Your task to perform on an android device: set the stopwatch Image 0: 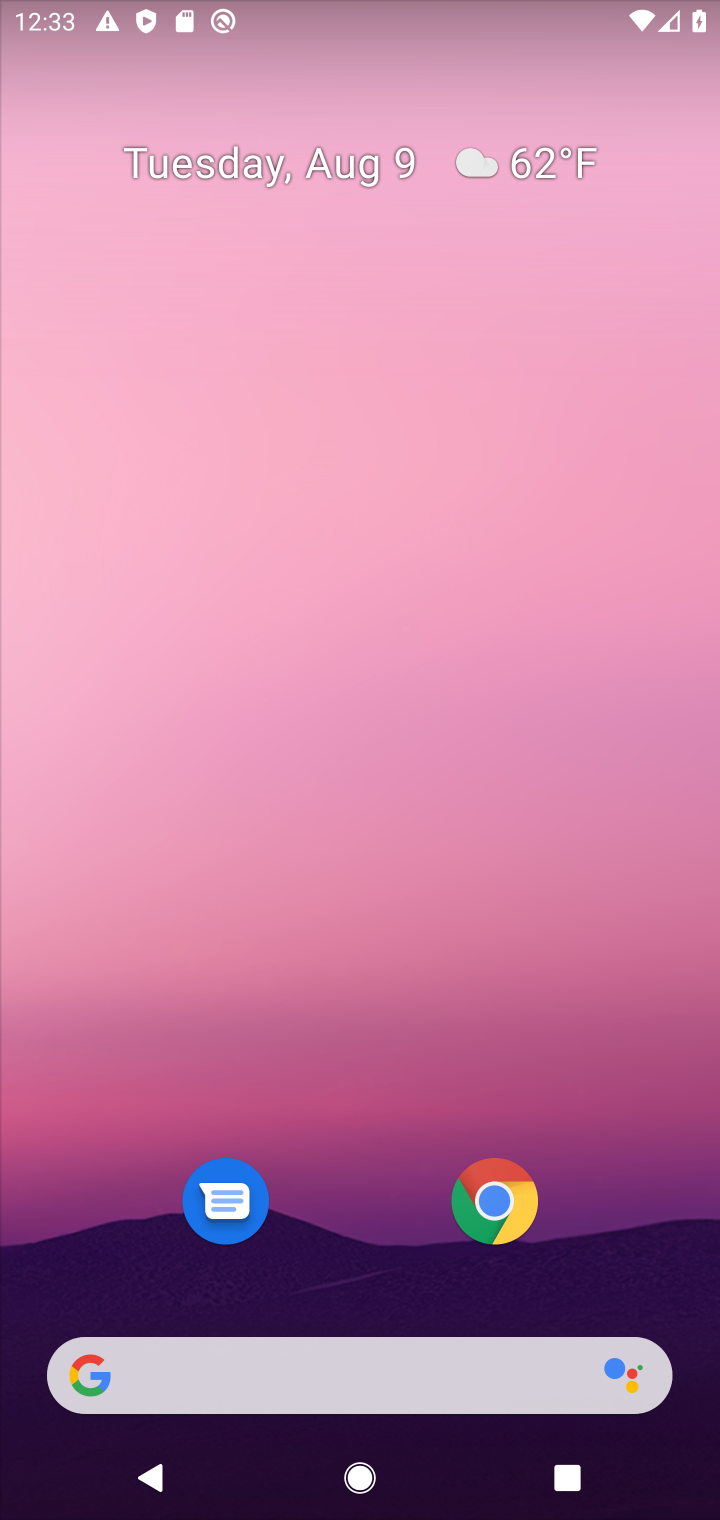
Step 0: click (411, 134)
Your task to perform on an android device: set the stopwatch Image 1: 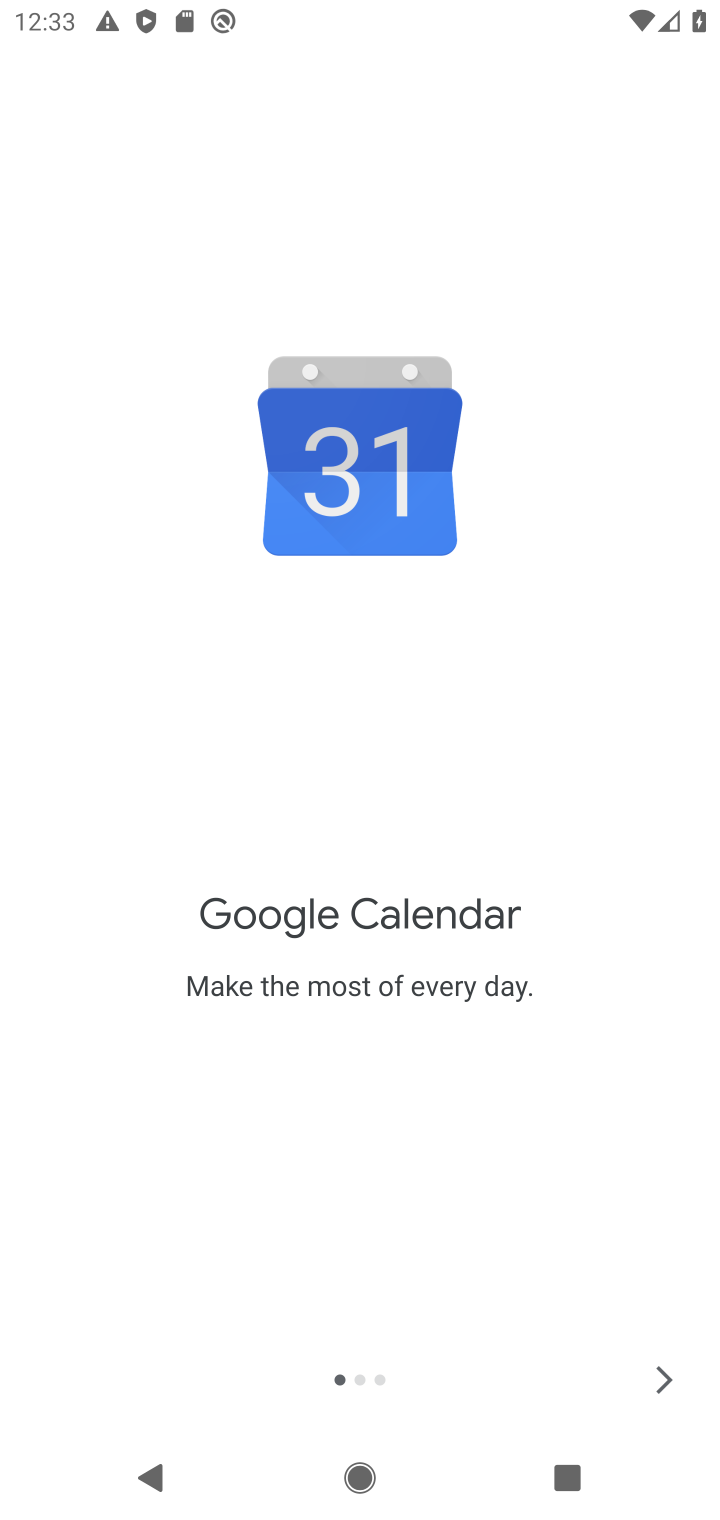
Step 1: press home button
Your task to perform on an android device: set the stopwatch Image 2: 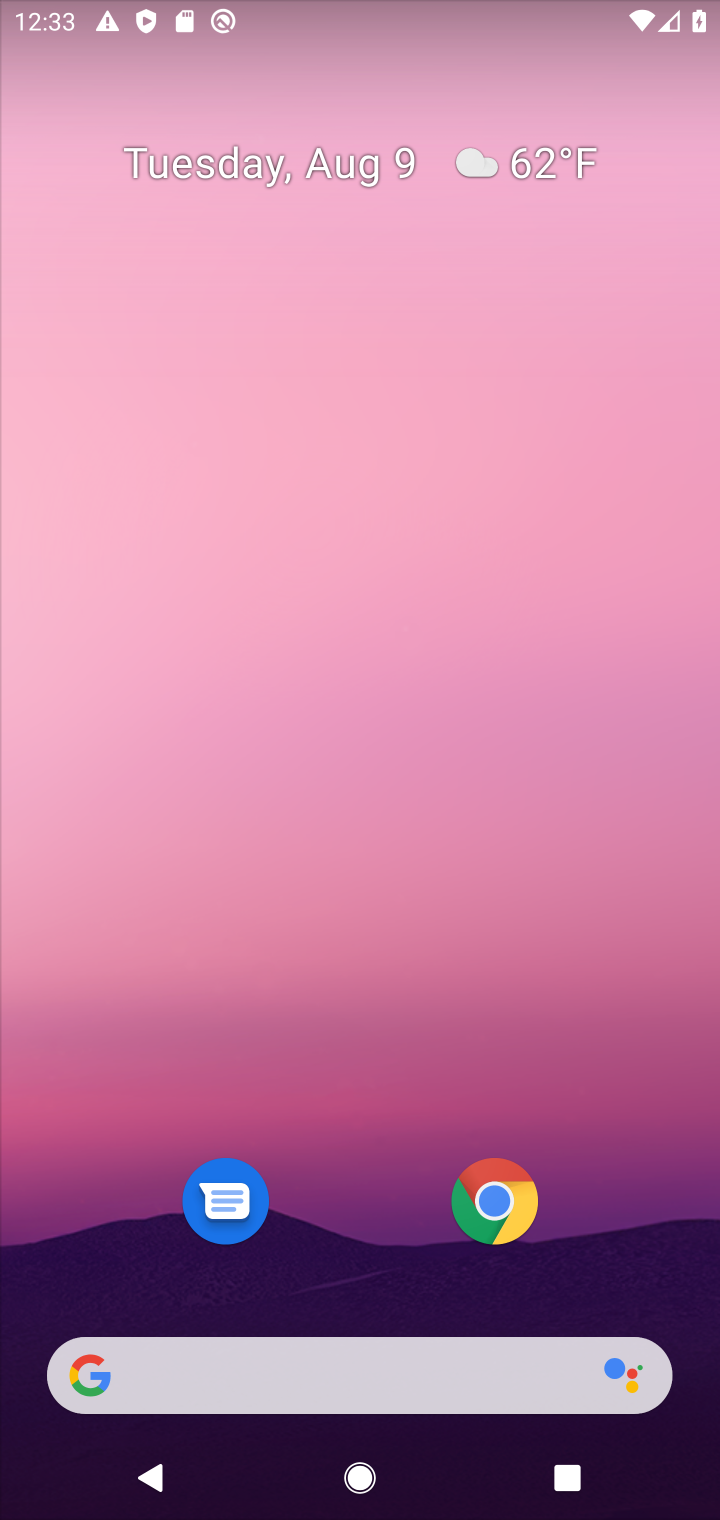
Step 2: drag from (362, 570) to (403, 126)
Your task to perform on an android device: set the stopwatch Image 3: 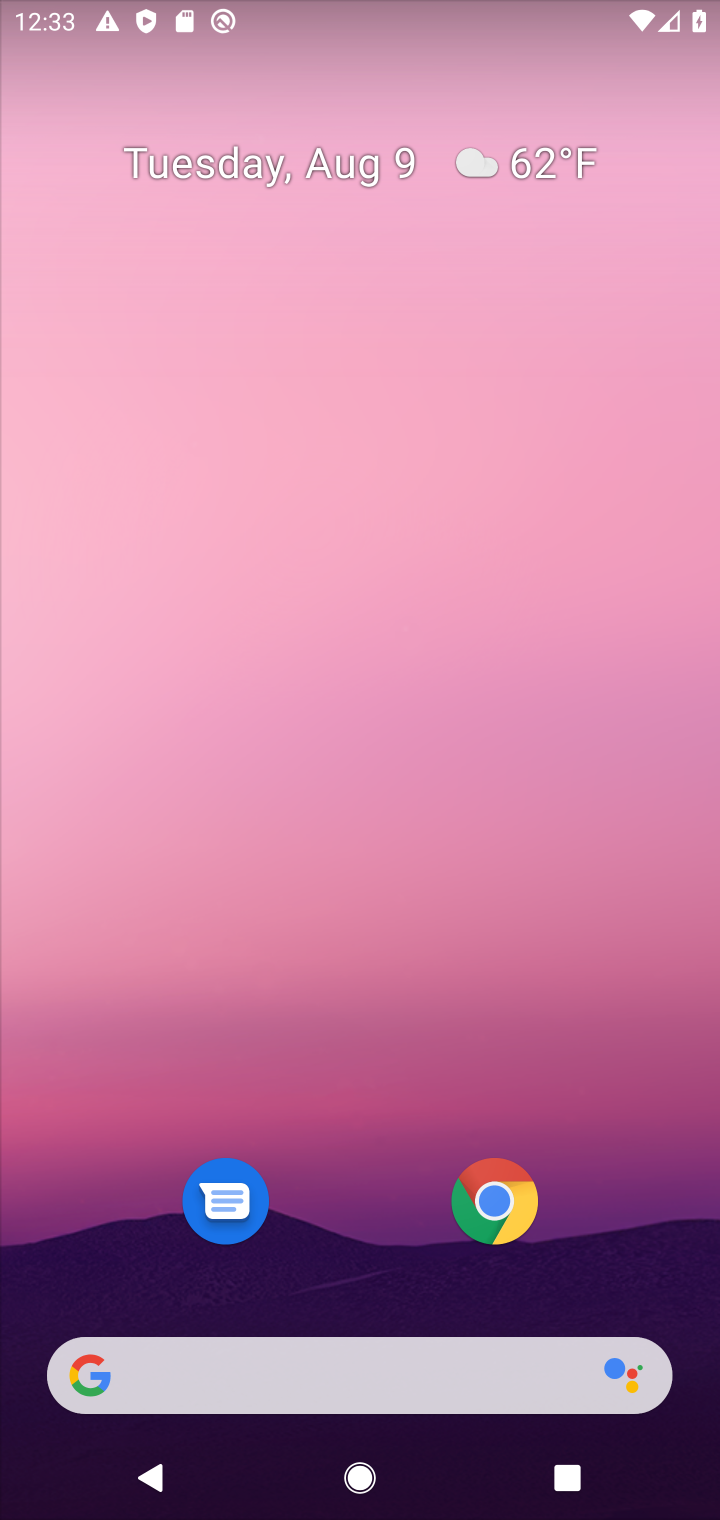
Step 3: drag from (327, 961) to (489, 17)
Your task to perform on an android device: set the stopwatch Image 4: 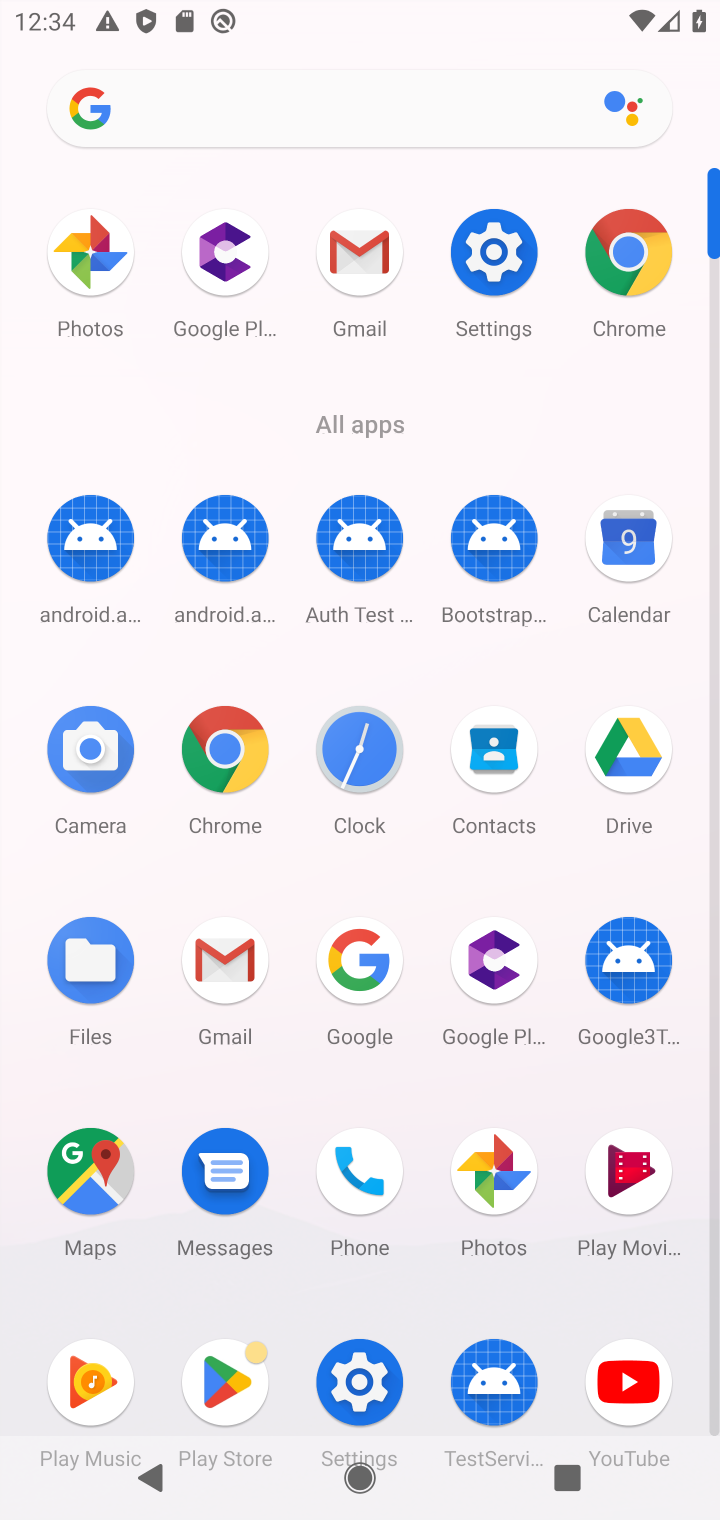
Step 4: click (366, 799)
Your task to perform on an android device: set the stopwatch Image 5: 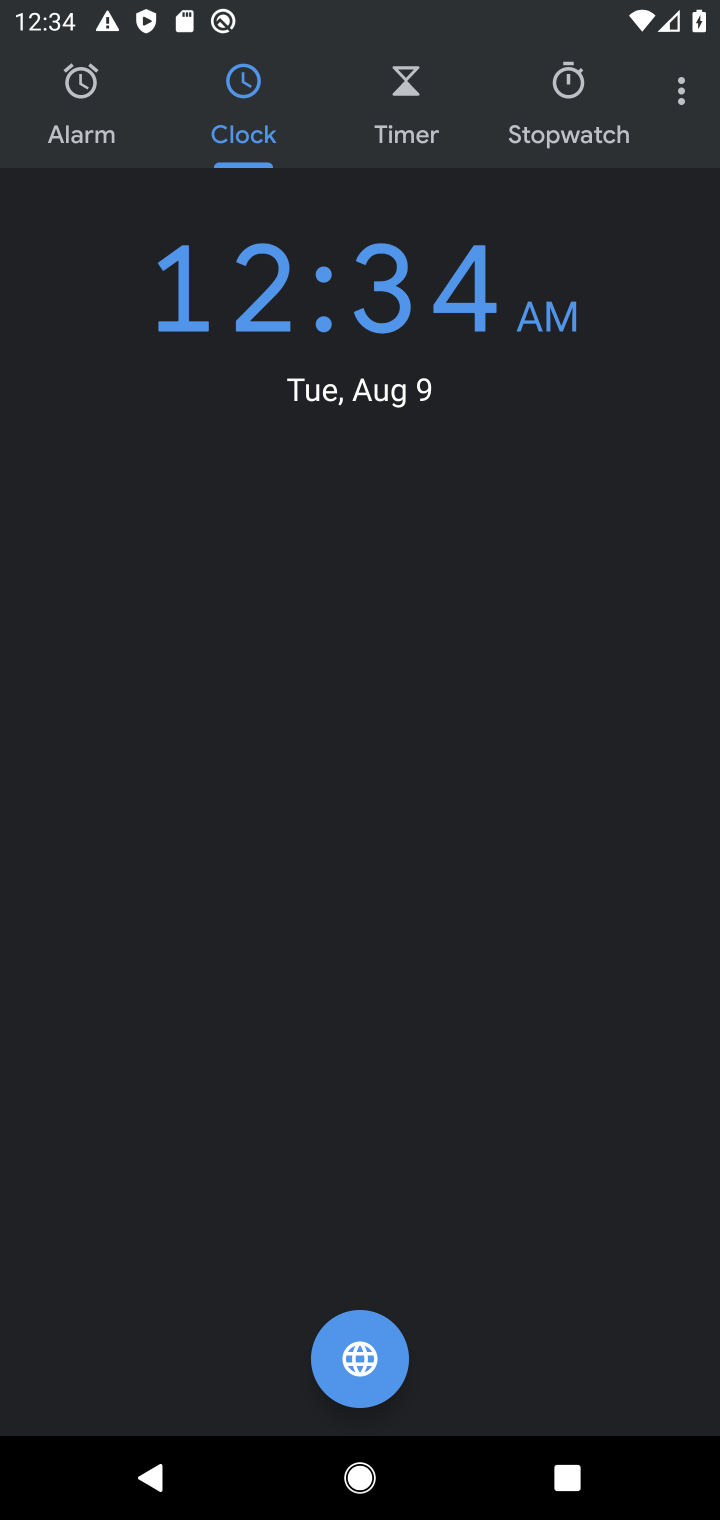
Step 5: click (550, 131)
Your task to perform on an android device: set the stopwatch Image 6: 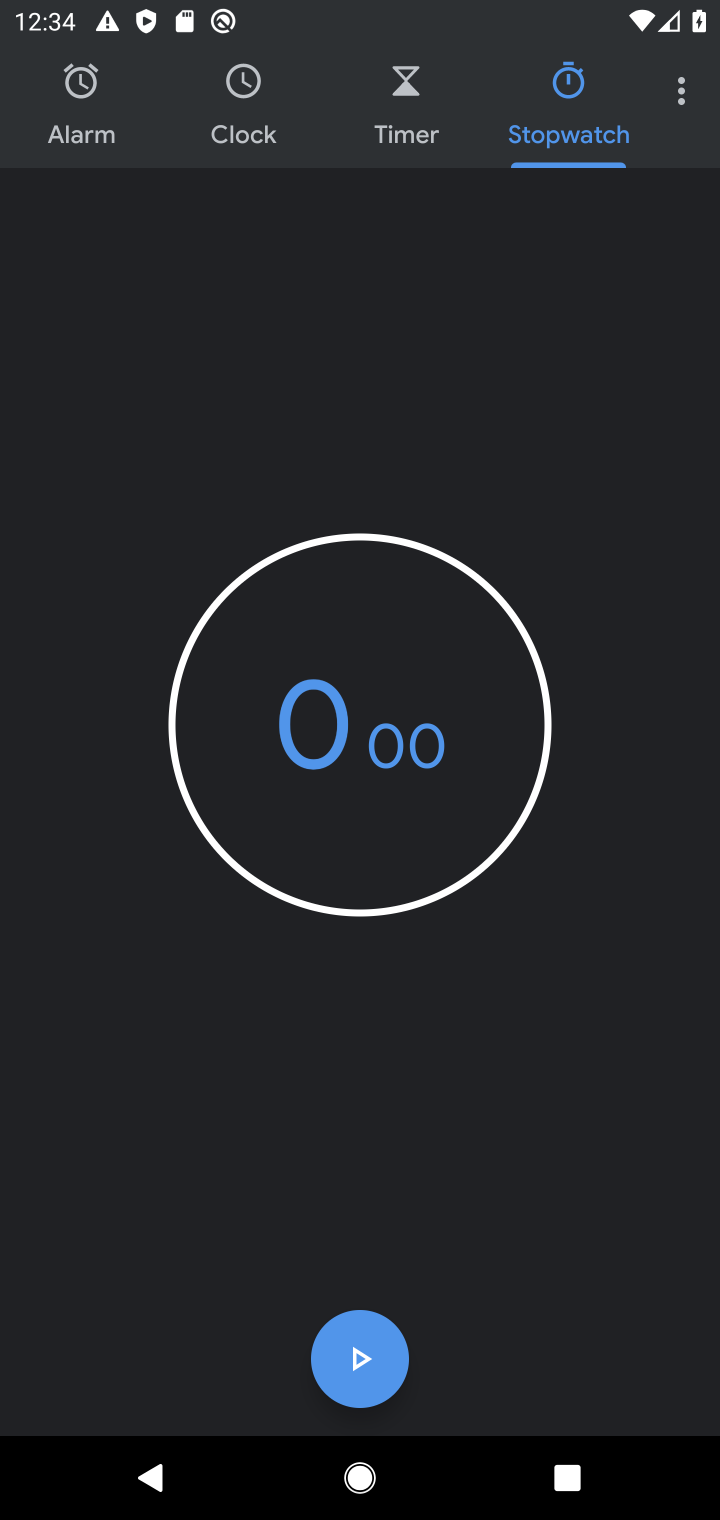
Step 6: click (378, 1355)
Your task to perform on an android device: set the stopwatch Image 7: 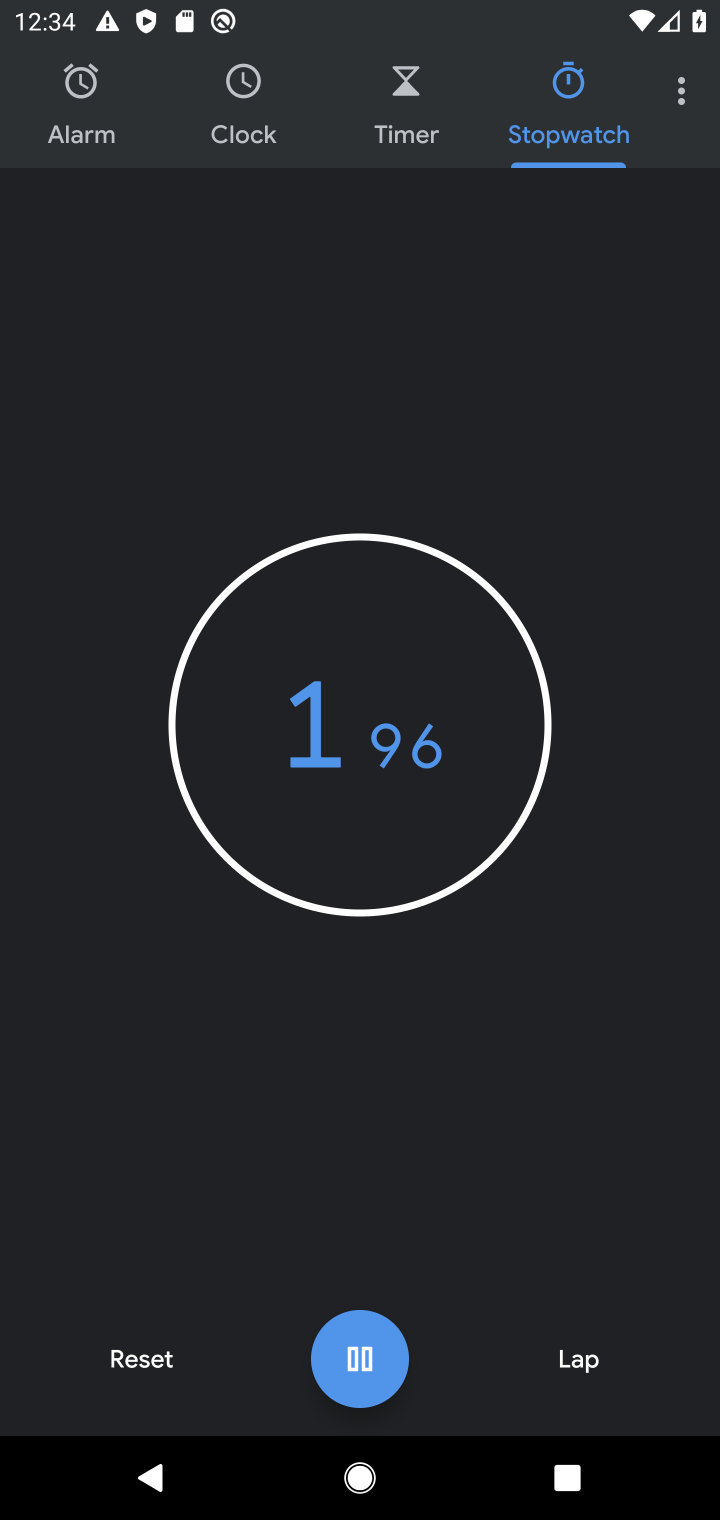
Step 7: task complete